Your task to perform on an android device: Open Google Chrome and open the bookmarks view Image 0: 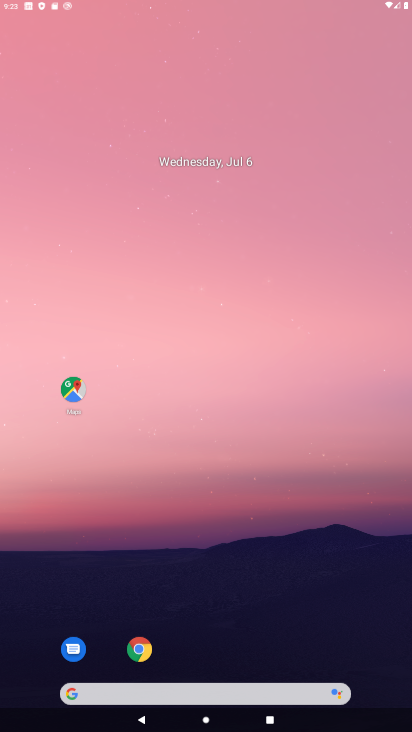
Step 0: click (220, 83)
Your task to perform on an android device: Open Google Chrome and open the bookmarks view Image 1: 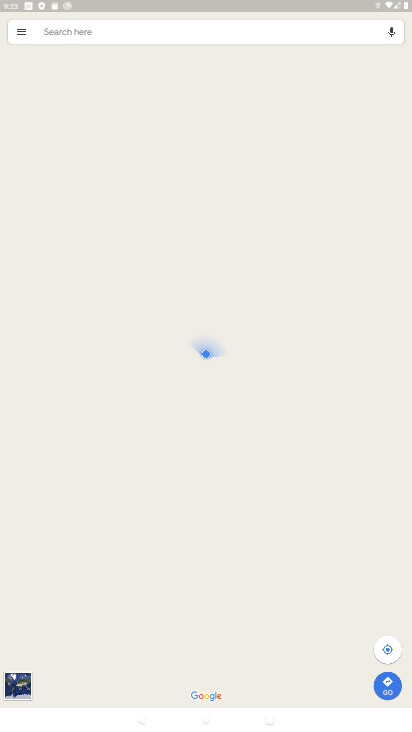
Step 1: press home button
Your task to perform on an android device: Open Google Chrome and open the bookmarks view Image 2: 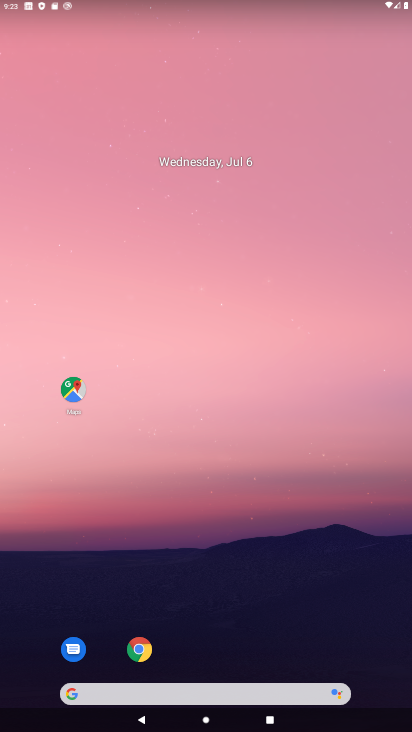
Step 2: drag from (191, 689) to (181, 166)
Your task to perform on an android device: Open Google Chrome and open the bookmarks view Image 3: 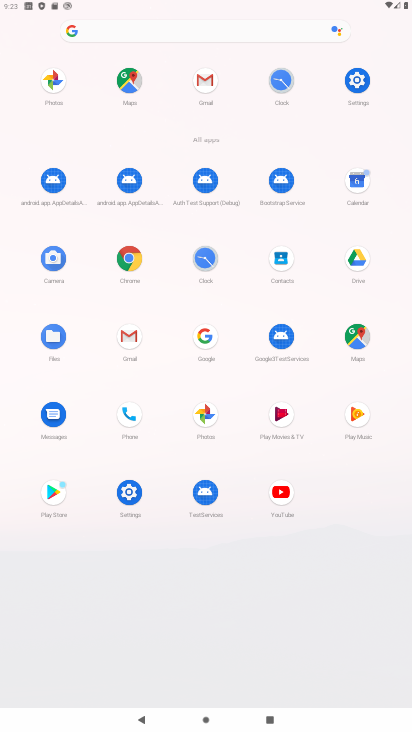
Step 3: click (144, 268)
Your task to perform on an android device: Open Google Chrome and open the bookmarks view Image 4: 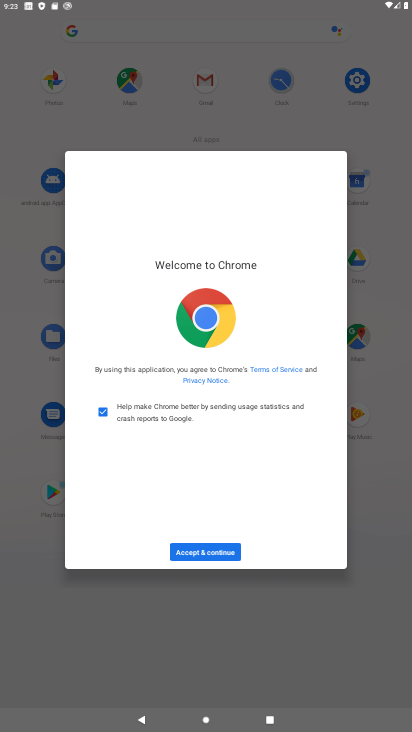
Step 4: click (230, 556)
Your task to perform on an android device: Open Google Chrome and open the bookmarks view Image 5: 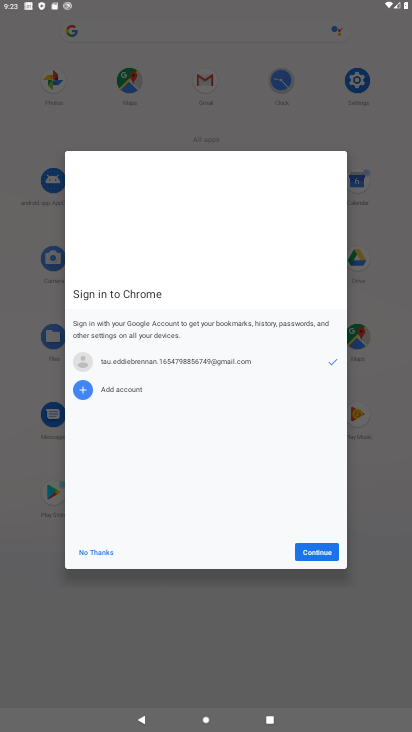
Step 5: click (312, 551)
Your task to perform on an android device: Open Google Chrome and open the bookmarks view Image 6: 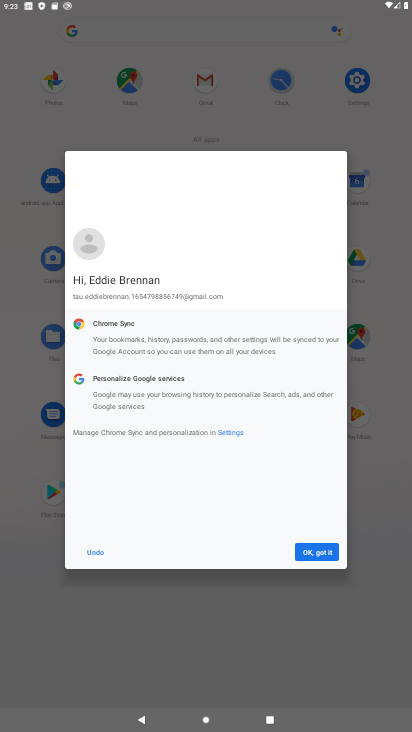
Step 6: click (314, 551)
Your task to perform on an android device: Open Google Chrome and open the bookmarks view Image 7: 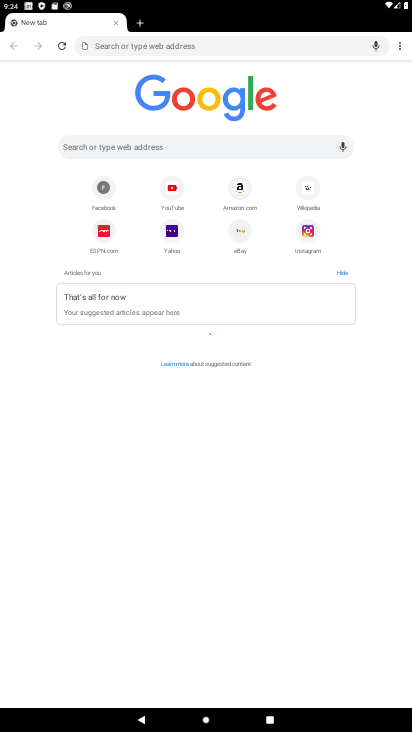
Step 7: click (398, 48)
Your task to perform on an android device: Open Google Chrome and open the bookmarks view Image 8: 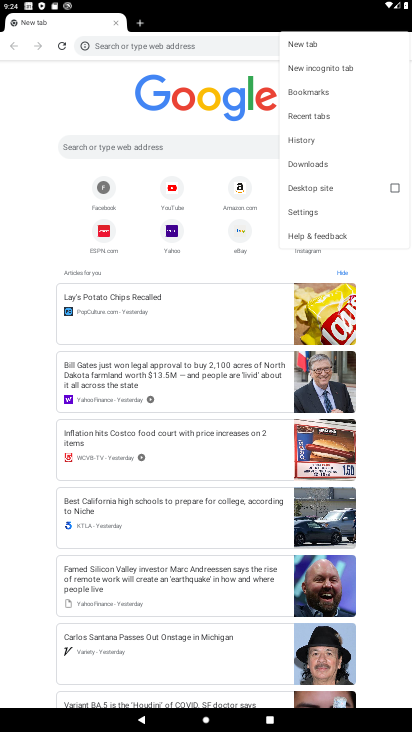
Step 8: click (314, 93)
Your task to perform on an android device: Open Google Chrome and open the bookmarks view Image 9: 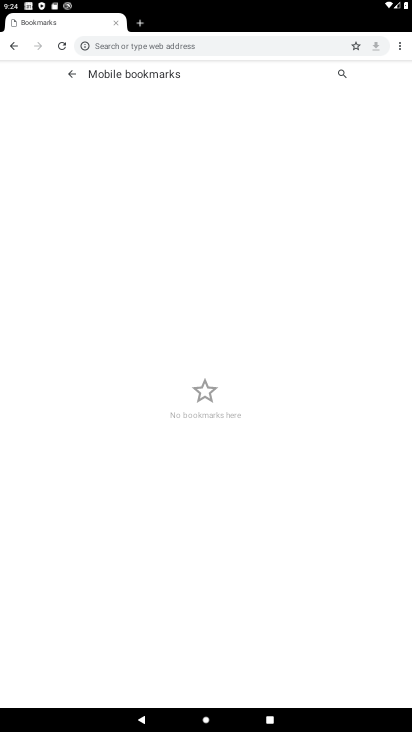
Step 9: task complete